Your task to perform on an android device: Add "acer nitro" to the cart on bestbuy.com, then select checkout. Image 0: 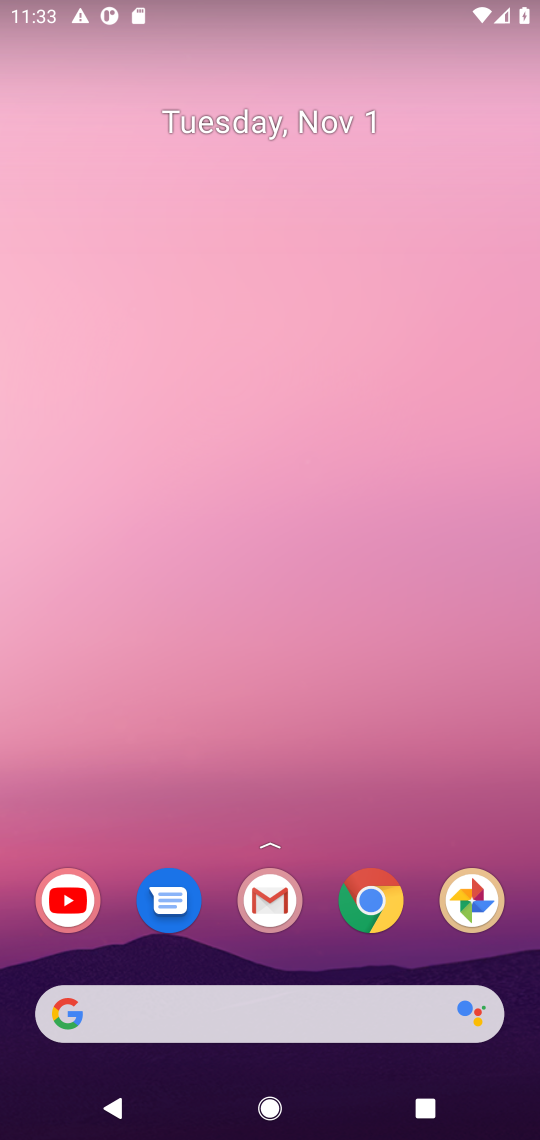
Step 0: click (371, 913)
Your task to perform on an android device: Add "acer nitro" to the cart on bestbuy.com, then select checkout. Image 1: 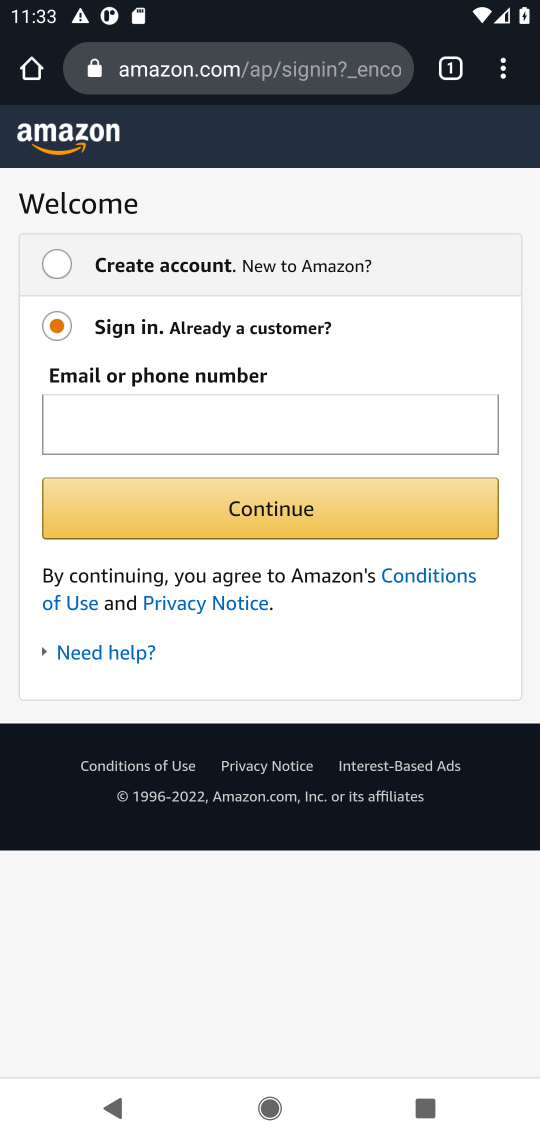
Step 1: click (167, 65)
Your task to perform on an android device: Add "acer nitro" to the cart on bestbuy.com, then select checkout. Image 2: 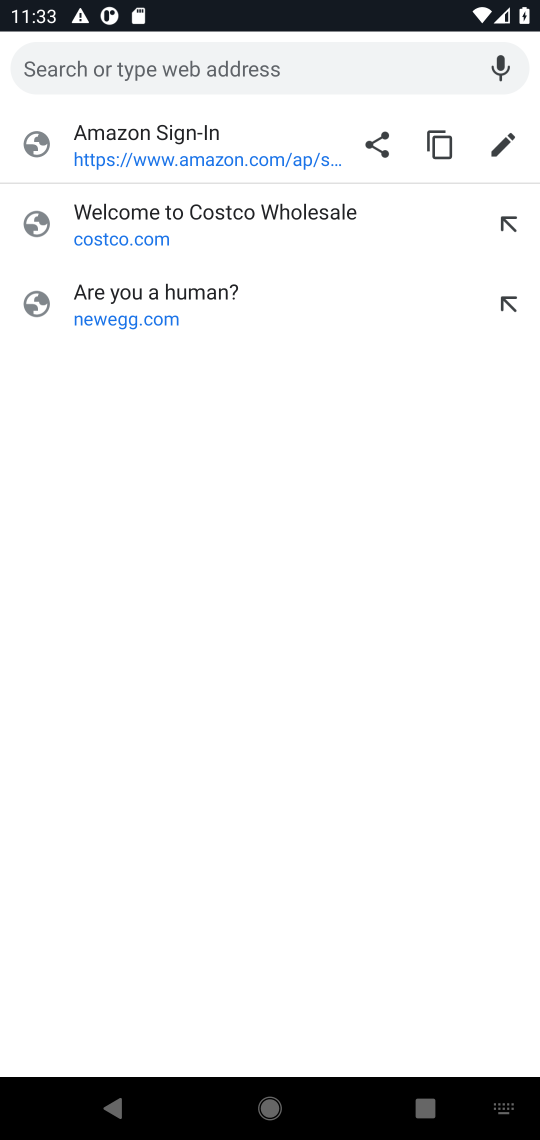
Step 2: type "bestbuy"
Your task to perform on an android device: Add "acer nitro" to the cart on bestbuy.com, then select checkout. Image 3: 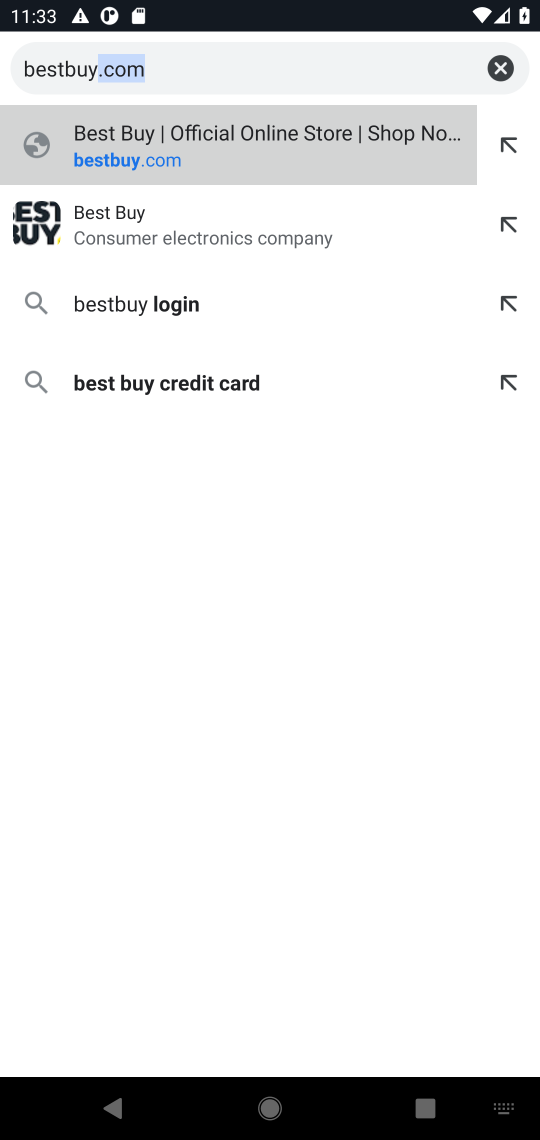
Step 3: type ""
Your task to perform on an android device: Add "acer nitro" to the cart on bestbuy.com, then select checkout. Image 4: 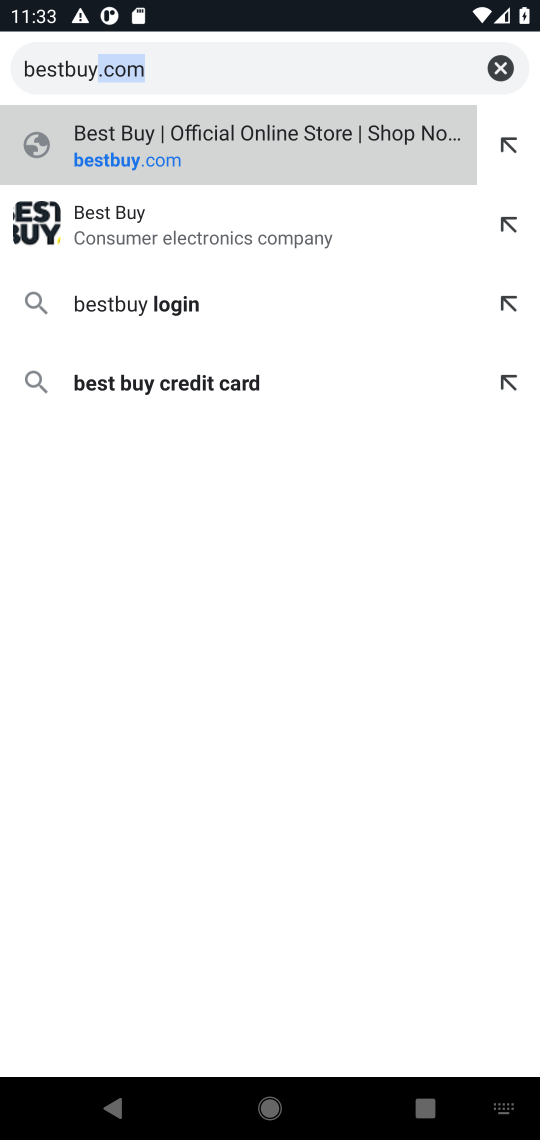
Step 4: click (203, 239)
Your task to perform on an android device: Add "acer nitro" to the cart on bestbuy.com, then select checkout. Image 5: 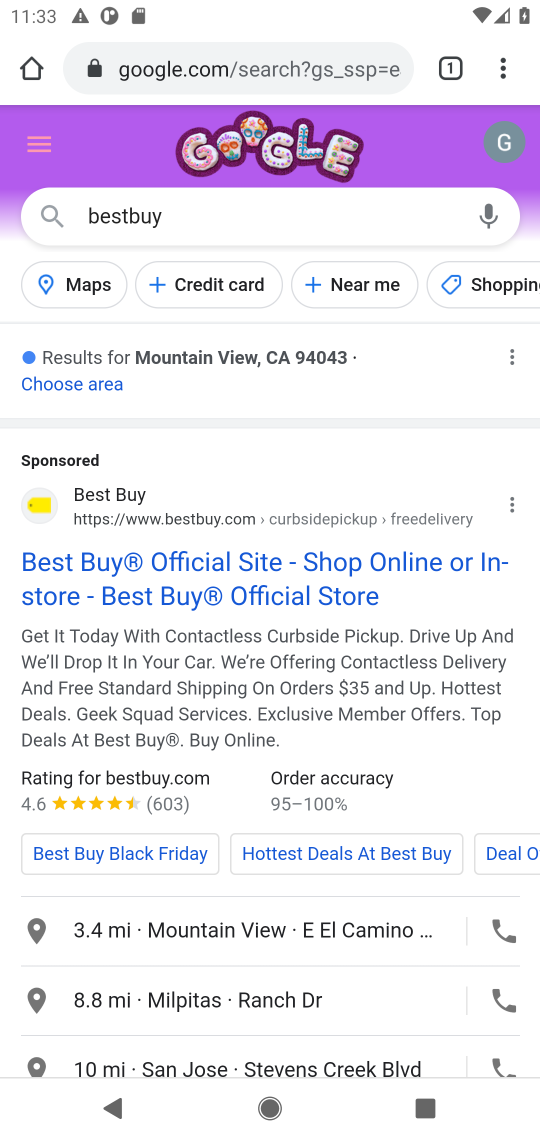
Step 5: click (290, 590)
Your task to perform on an android device: Add "acer nitro" to the cart on bestbuy.com, then select checkout. Image 6: 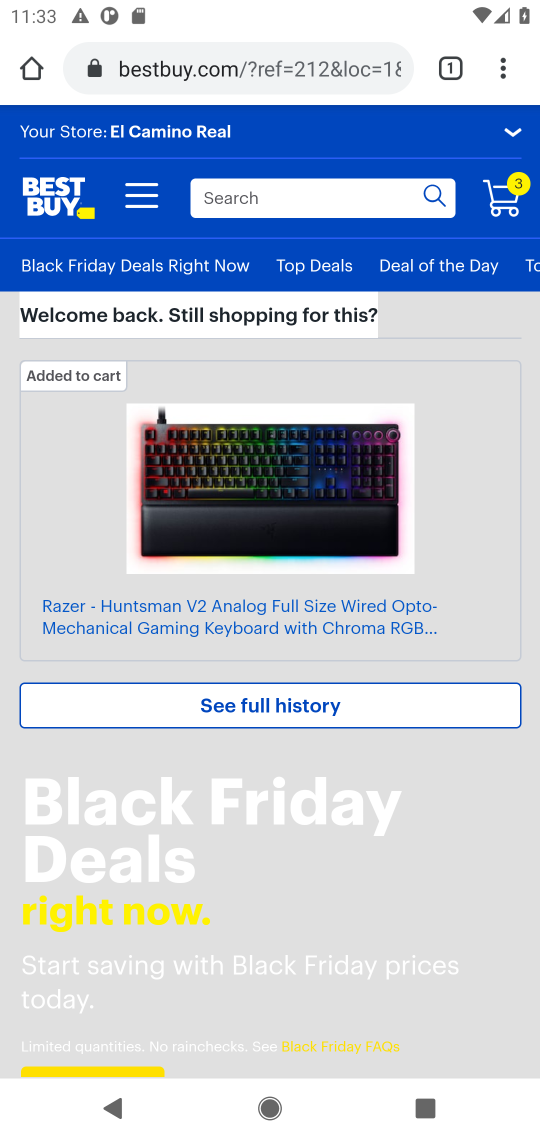
Step 6: click (264, 192)
Your task to perform on an android device: Add "acer nitro" to the cart on bestbuy.com, then select checkout. Image 7: 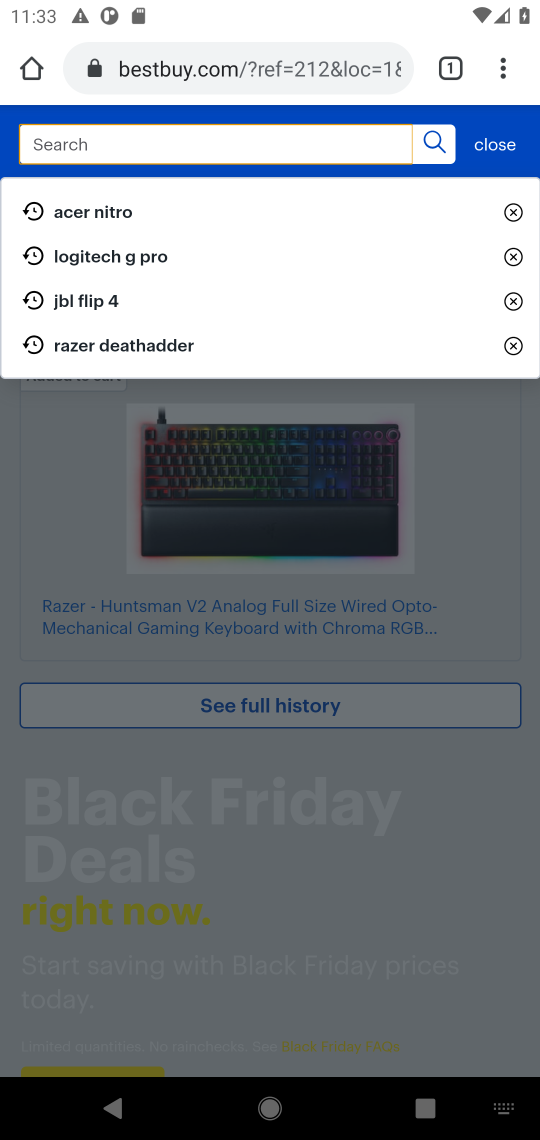
Step 7: click (41, 214)
Your task to perform on an android device: Add "acer nitro" to the cart on bestbuy.com, then select checkout. Image 8: 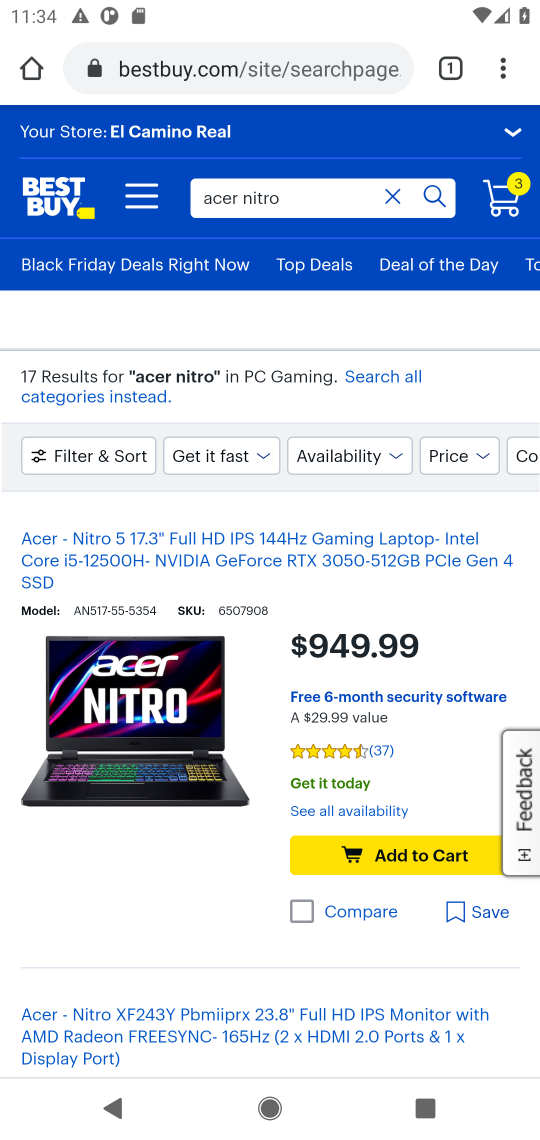
Step 8: click (378, 855)
Your task to perform on an android device: Add "acer nitro" to the cart on bestbuy.com, then select checkout. Image 9: 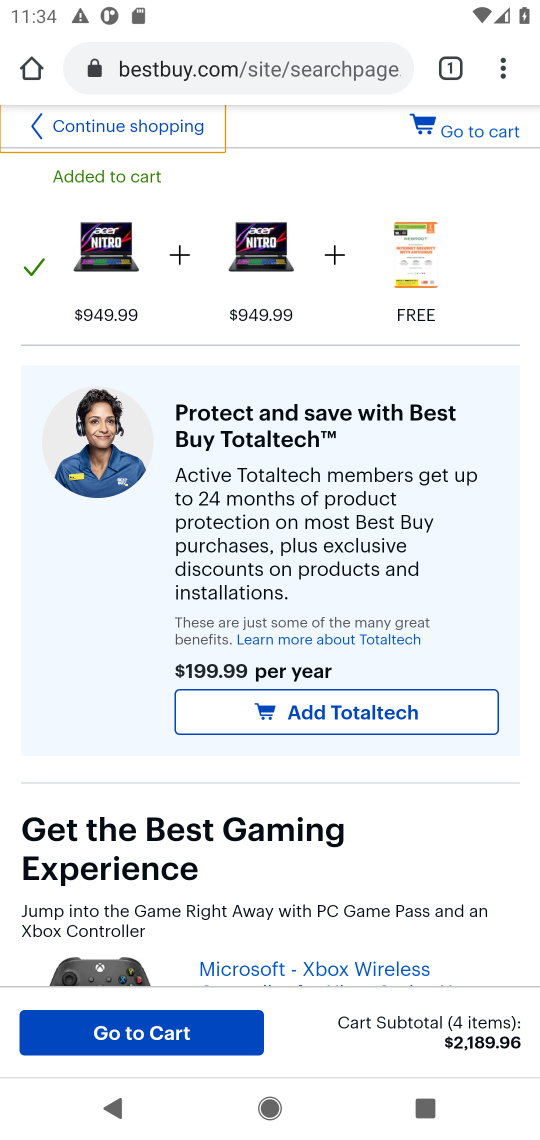
Step 9: click (445, 125)
Your task to perform on an android device: Add "acer nitro" to the cart on bestbuy.com, then select checkout. Image 10: 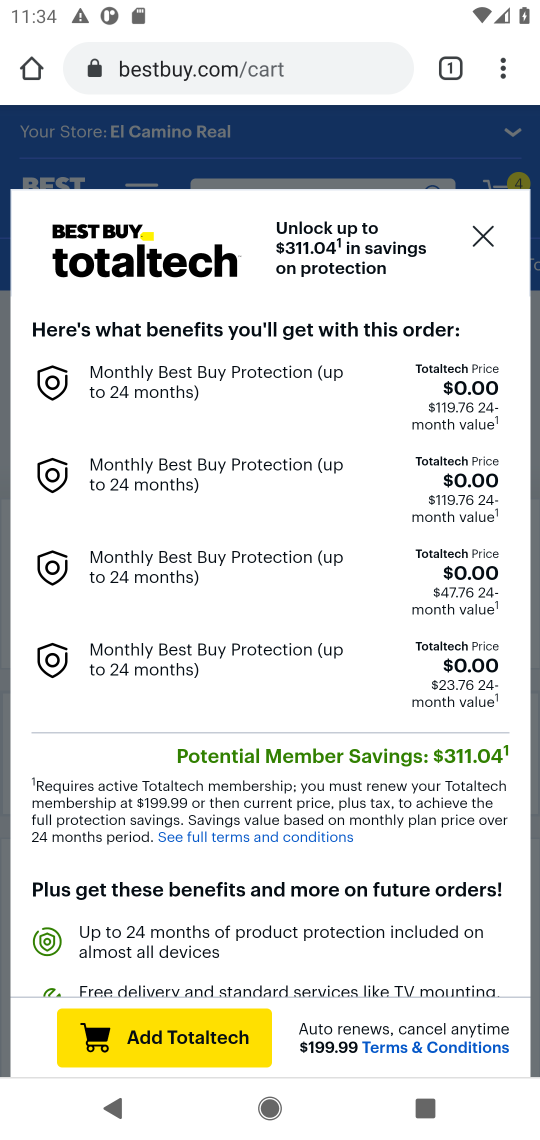
Step 10: click (476, 232)
Your task to perform on an android device: Add "acer nitro" to the cart on bestbuy.com, then select checkout. Image 11: 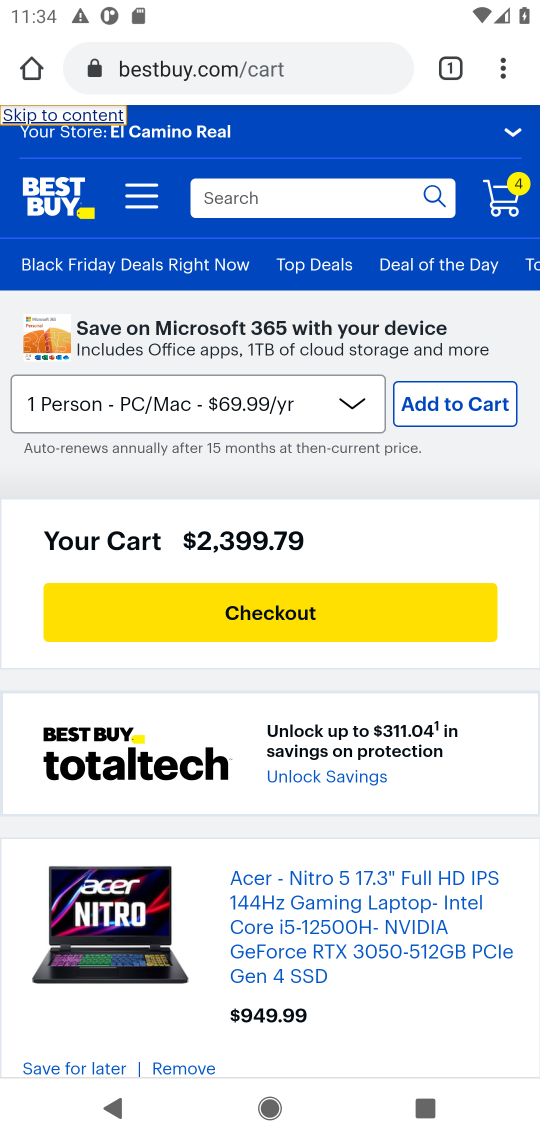
Step 11: click (158, 624)
Your task to perform on an android device: Add "acer nitro" to the cart on bestbuy.com, then select checkout. Image 12: 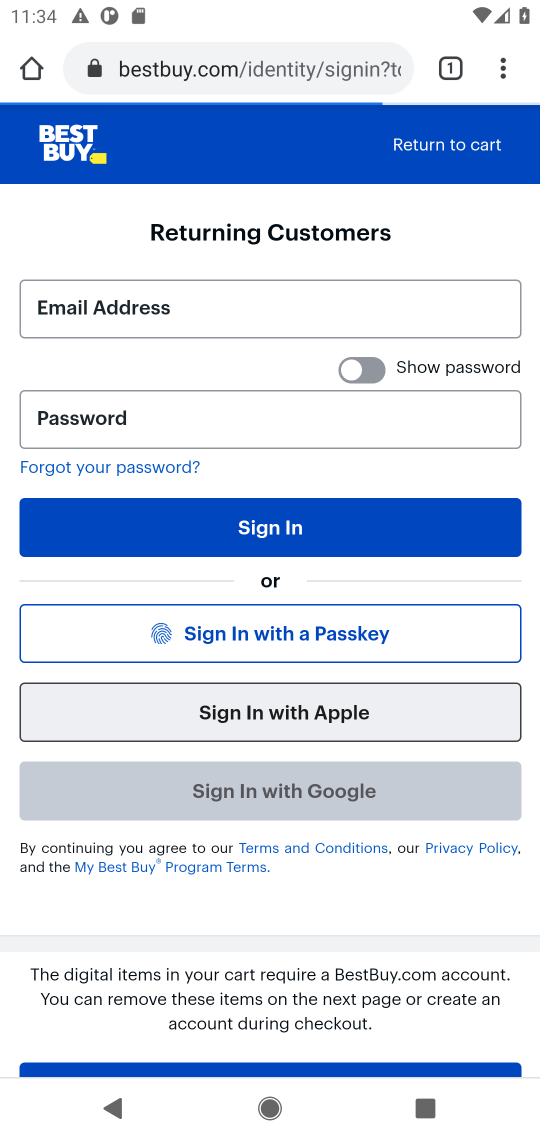
Step 12: task complete